Your task to perform on an android device: change the clock display to show seconds Image 0: 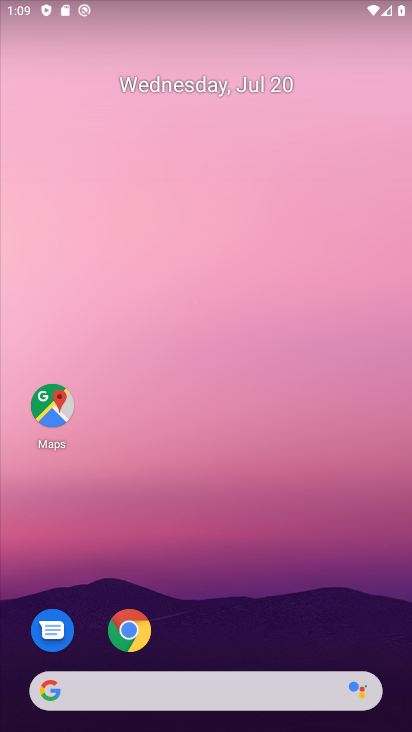
Step 0: drag from (331, 649) to (236, 86)
Your task to perform on an android device: change the clock display to show seconds Image 1: 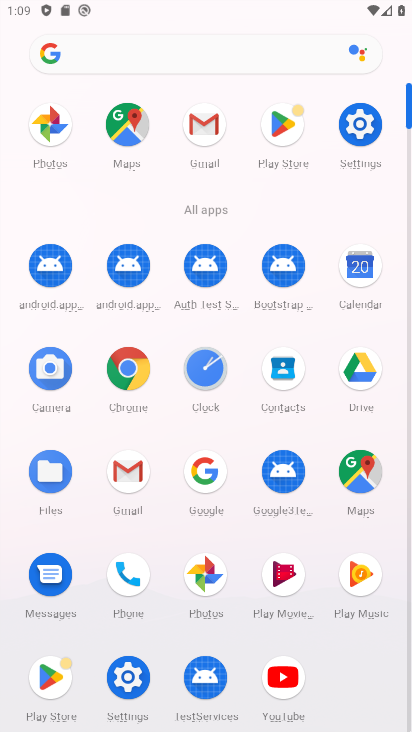
Step 1: click (217, 369)
Your task to perform on an android device: change the clock display to show seconds Image 2: 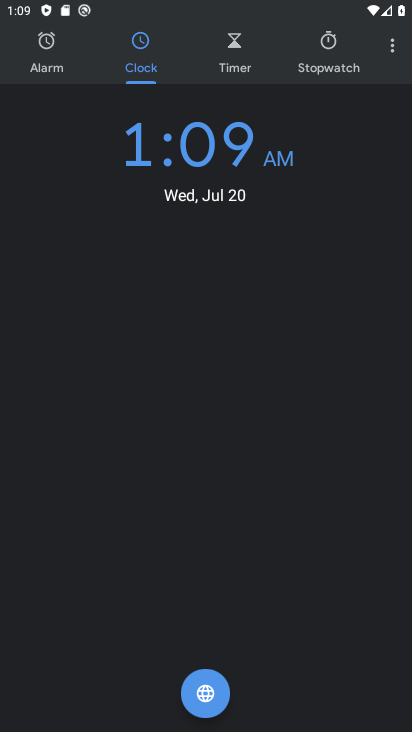
Step 2: click (391, 39)
Your task to perform on an android device: change the clock display to show seconds Image 3: 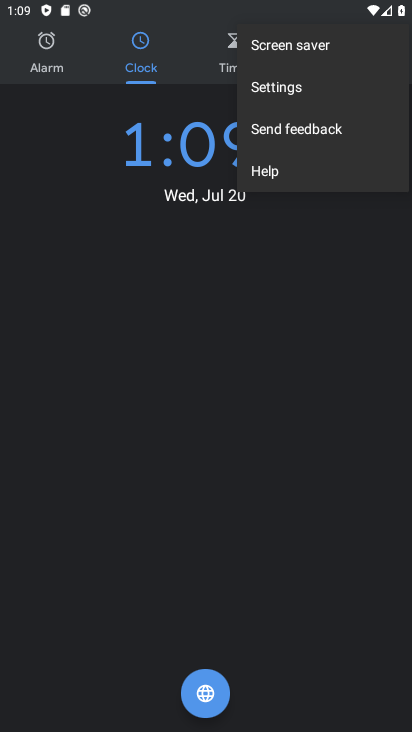
Step 3: click (303, 96)
Your task to perform on an android device: change the clock display to show seconds Image 4: 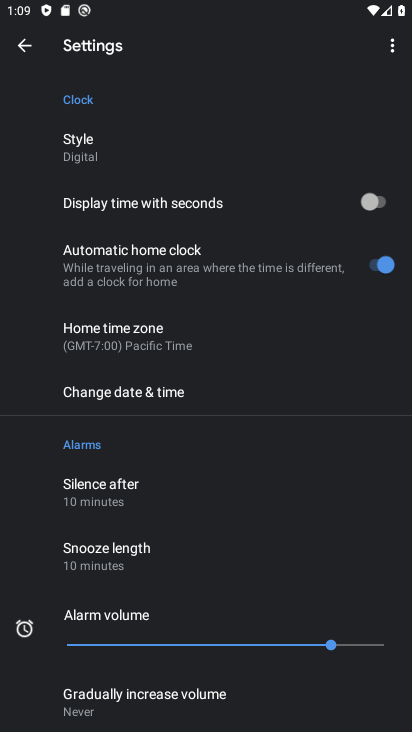
Step 4: click (373, 213)
Your task to perform on an android device: change the clock display to show seconds Image 5: 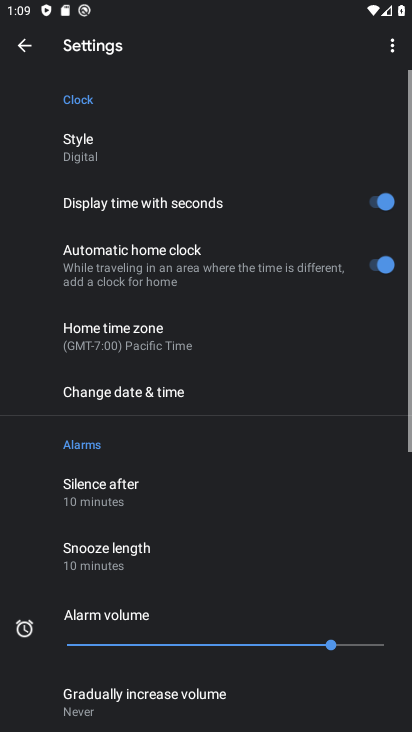
Step 5: task complete